Your task to perform on an android device: Search for sushi restaurants on Maps Image 0: 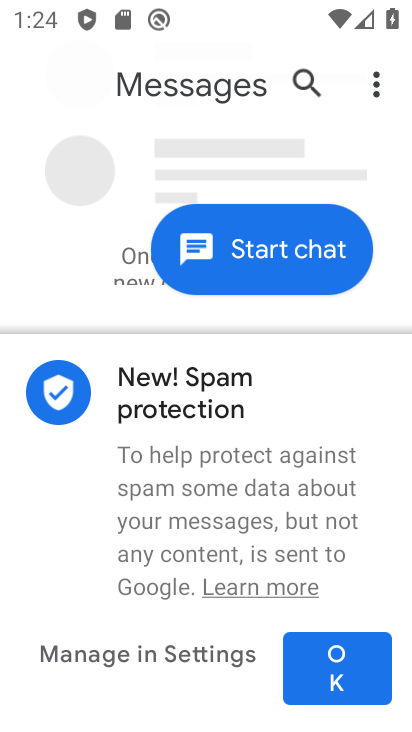
Step 0: press home button
Your task to perform on an android device: Search for sushi restaurants on Maps Image 1: 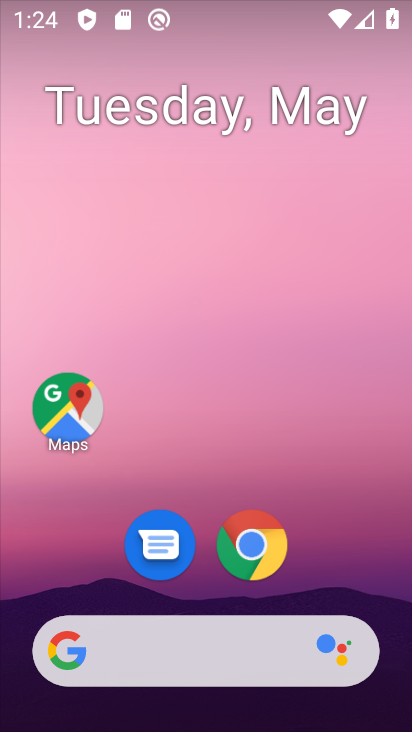
Step 1: click (65, 406)
Your task to perform on an android device: Search for sushi restaurants on Maps Image 2: 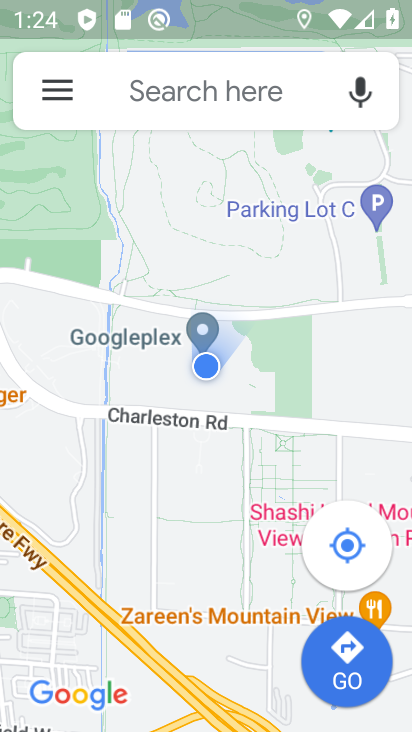
Step 2: click (178, 84)
Your task to perform on an android device: Search for sushi restaurants on Maps Image 3: 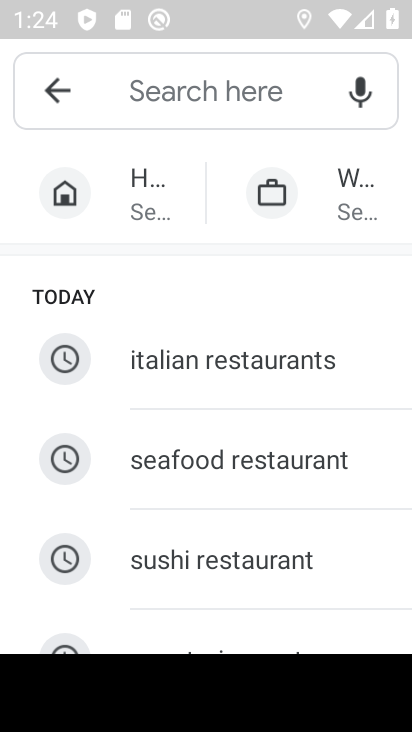
Step 3: type "sushi restaurants"
Your task to perform on an android device: Search for sushi restaurants on Maps Image 4: 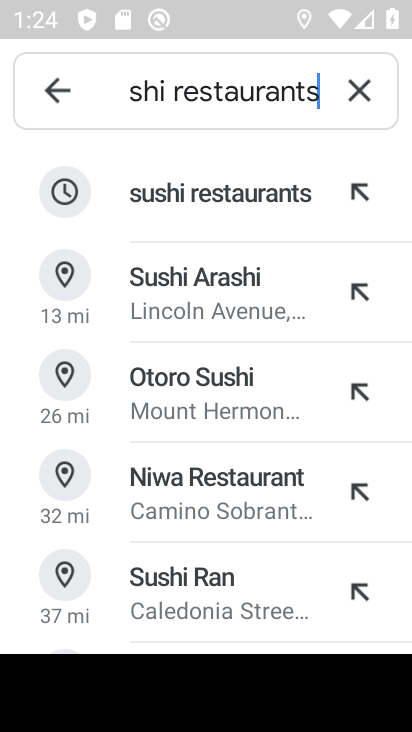
Step 4: click (184, 193)
Your task to perform on an android device: Search for sushi restaurants on Maps Image 5: 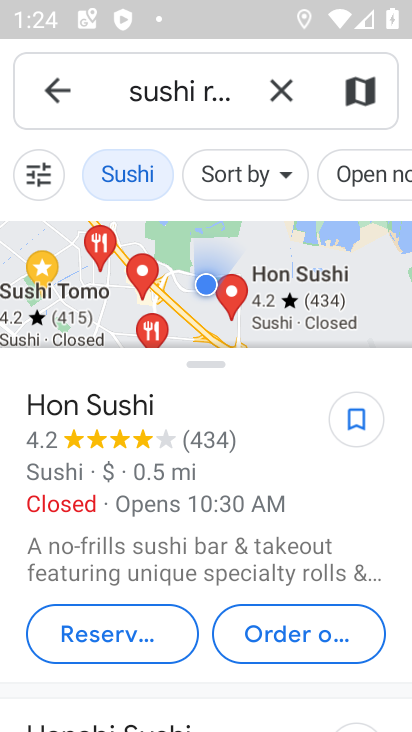
Step 5: task complete